Your task to perform on an android device: Go to display settings Image 0: 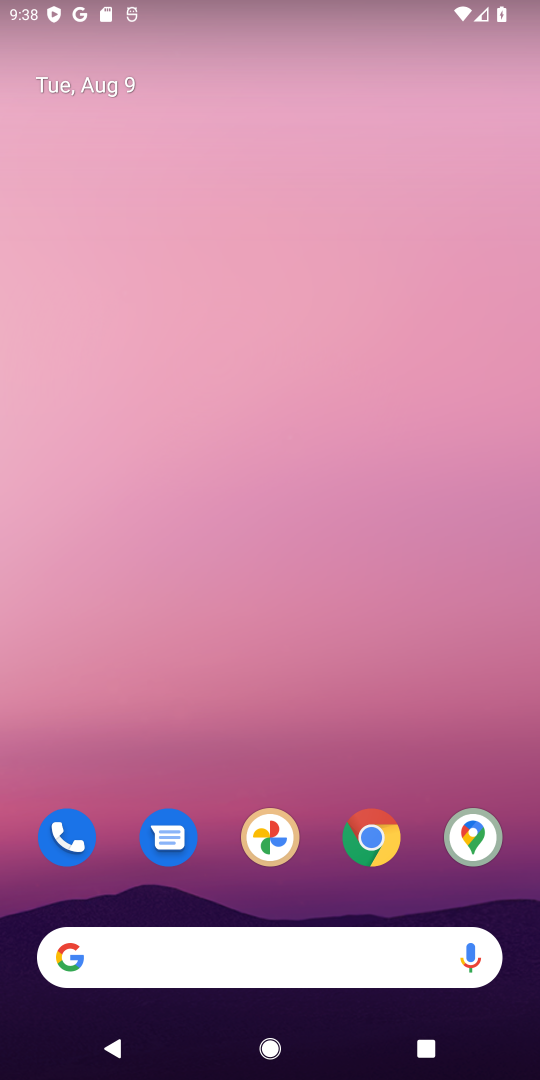
Step 0: drag from (326, 909) to (308, 98)
Your task to perform on an android device: Go to display settings Image 1: 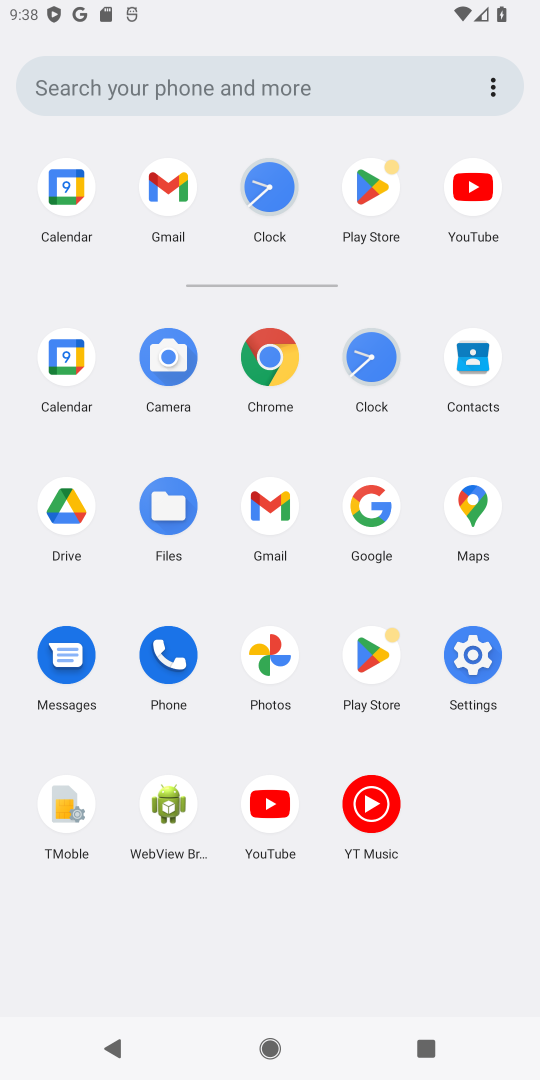
Step 1: click (478, 650)
Your task to perform on an android device: Go to display settings Image 2: 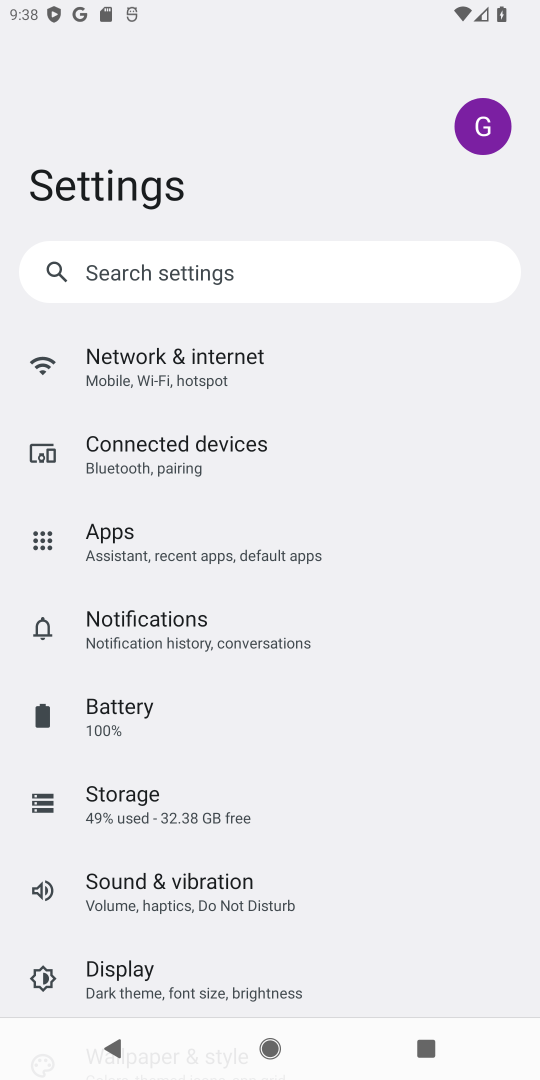
Step 2: click (140, 966)
Your task to perform on an android device: Go to display settings Image 3: 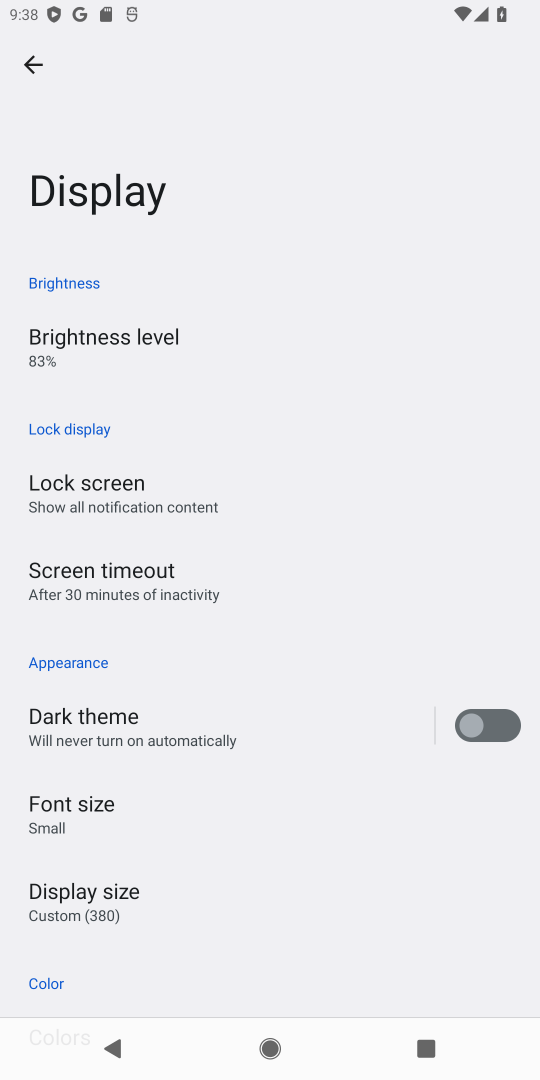
Step 3: task complete